Your task to perform on an android device: Is it going to rain this weekend? Image 0: 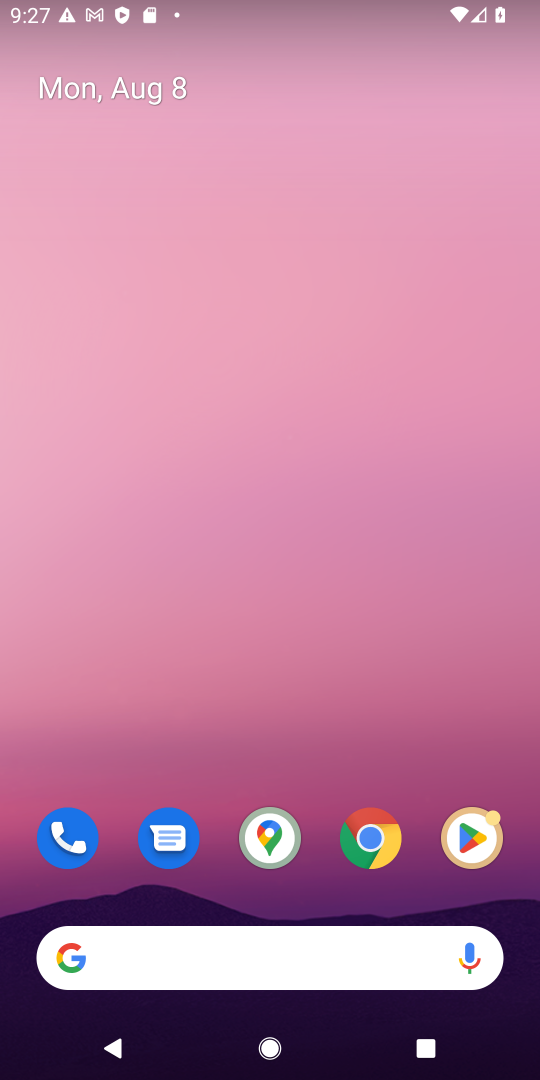
Step 0: drag from (282, 704) to (352, 60)
Your task to perform on an android device: Is it going to rain this weekend? Image 1: 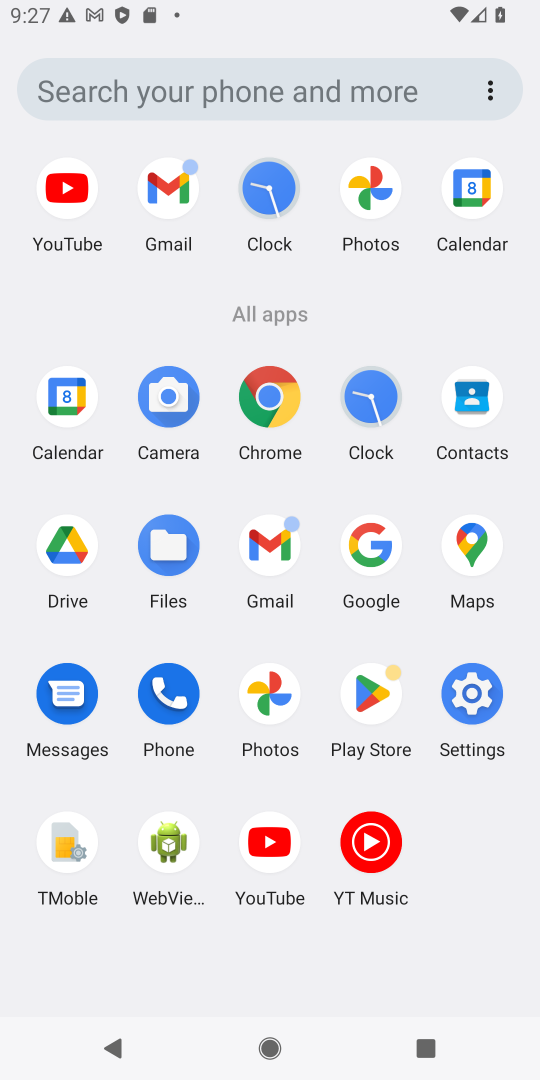
Step 1: click (250, 391)
Your task to perform on an android device: Is it going to rain this weekend? Image 2: 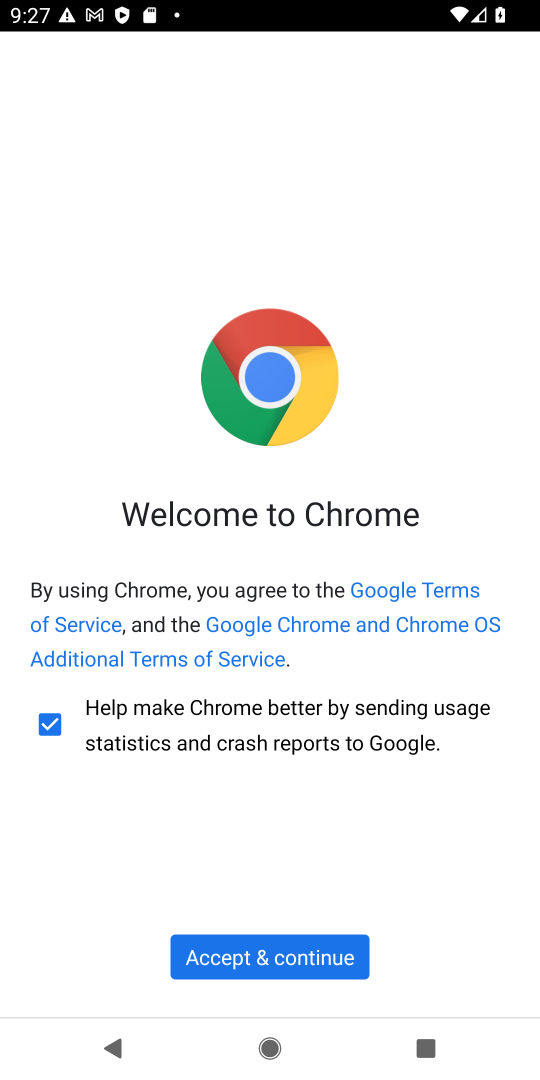
Step 2: click (351, 959)
Your task to perform on an android device: Is it going to rain this weekend? Image 3: 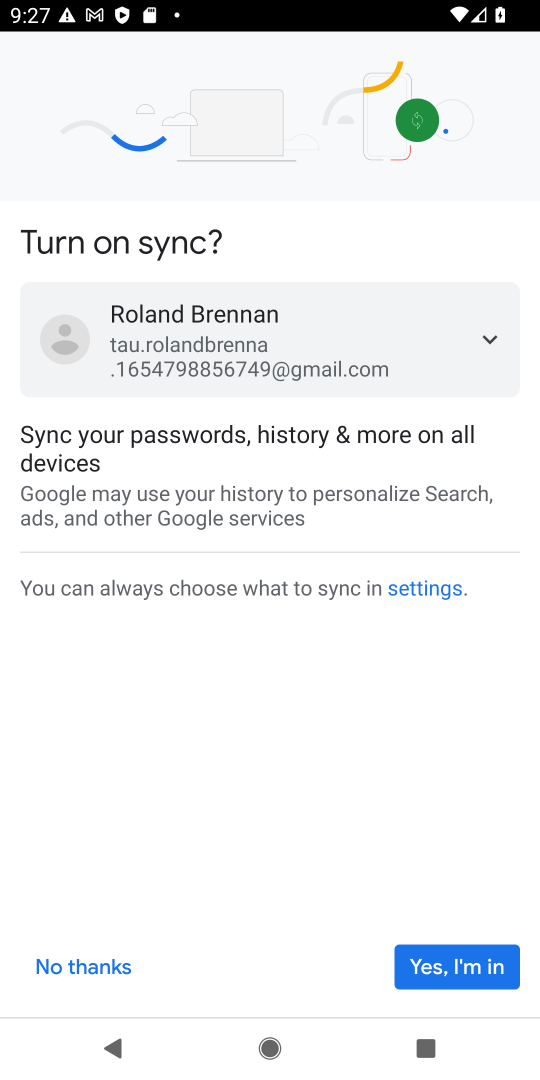
Step 3: click (425, 962)
Your task to perform on an android device: Is it going to rain this weekend? Image 4: 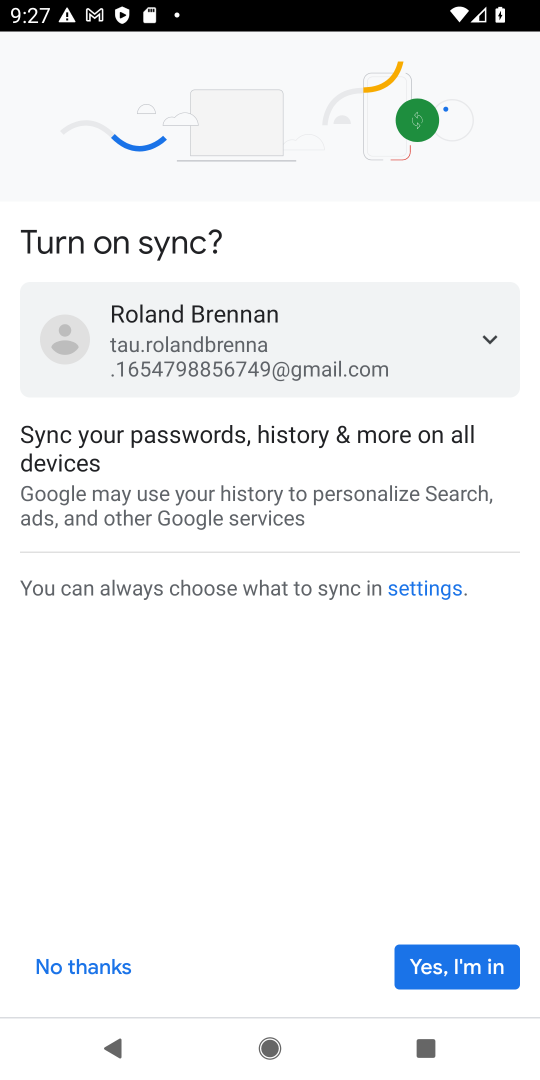
Step 4: click (425, 962)
Your task to perform on an android device: Is it going to rain this weekend? Image 5: 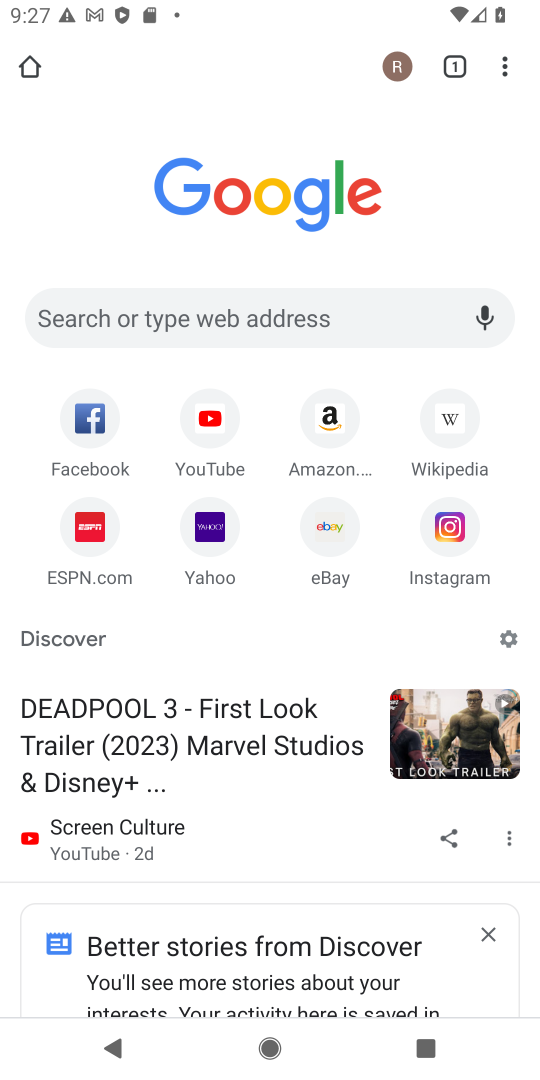
Step 5: click (307, 309)
Your task to perform on an android device: Is it going to rain this weekend? Image 6: 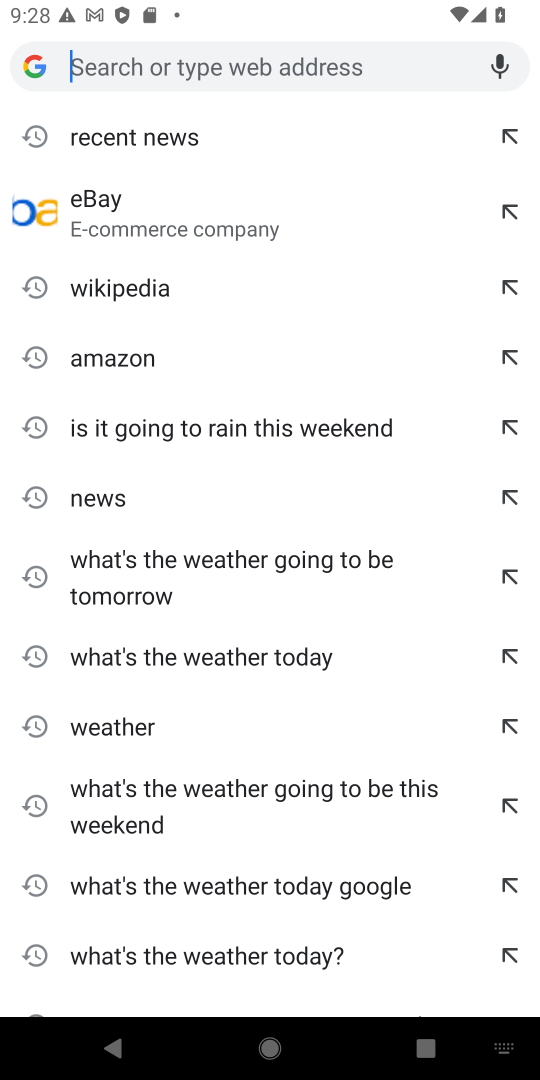
Step 6: type "weather"
Your task to perform on an android device: Is it going to rain this weekend? Image 7: 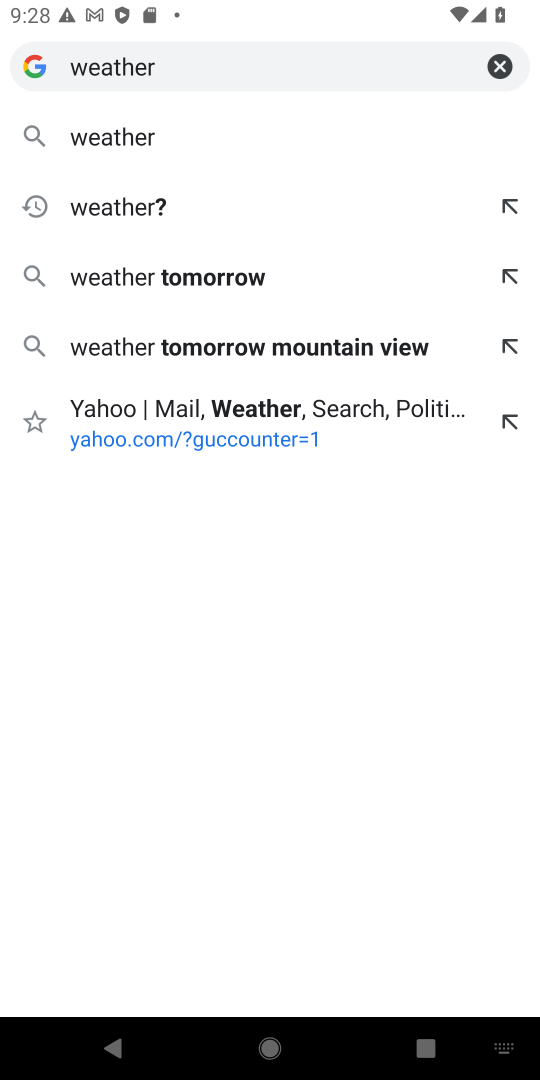
Step 7: click (145, 132)
Your task to perform on an android device: Is it going to rain this weekend? Image 8: 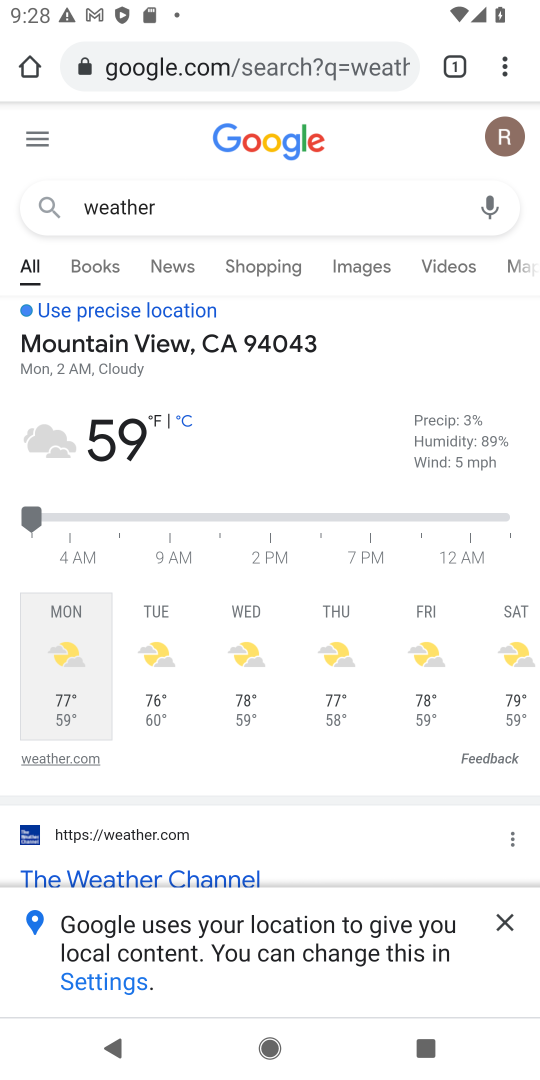
Step 8: click (506, 650)
Your task to perform on an android device: Is it going to rain this weekend? Image 9: 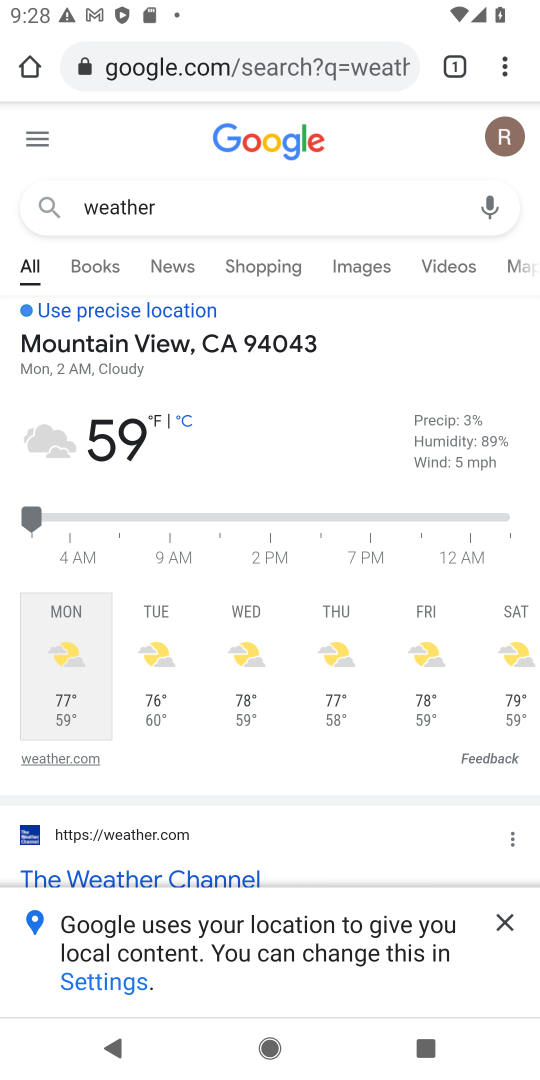
Step 9: click (506, 659)
Your task to perform on an android device: Is it going to rain this weekend? Image 10: 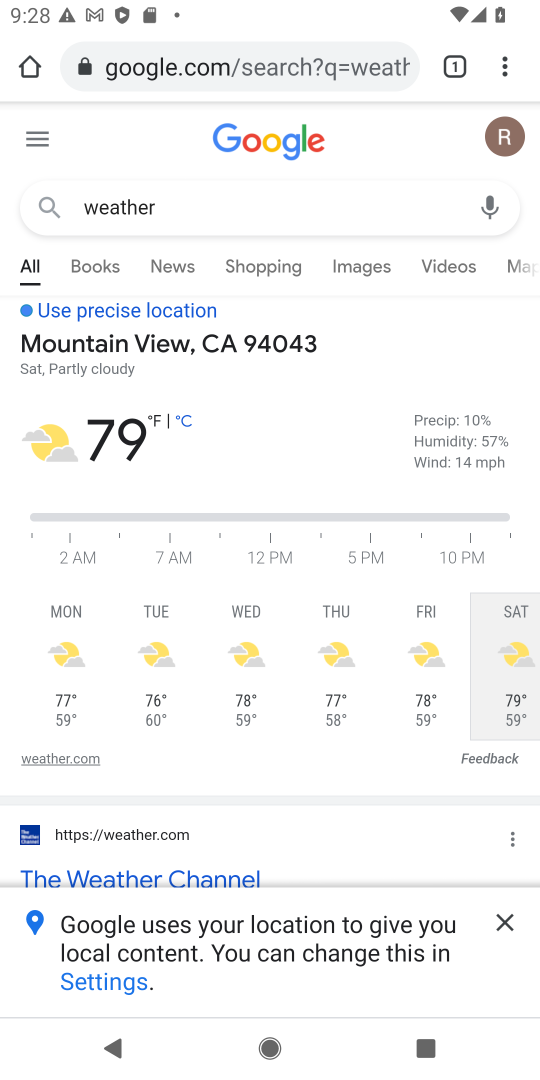
Step 10: task complete